Your task to perform on an android device: Go to Google maps Image 0: 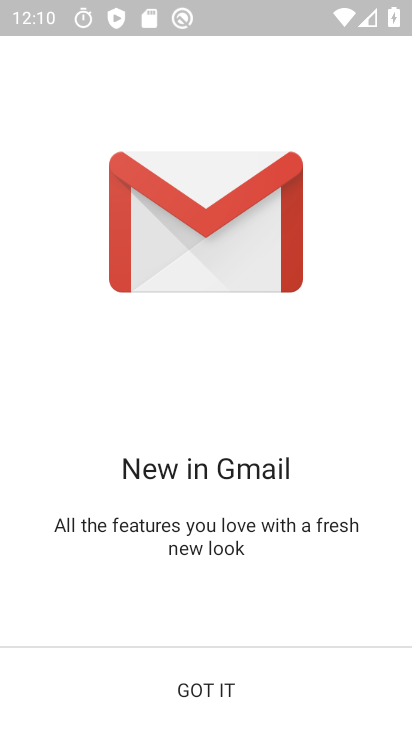
Step 0: press back button
Your task to perform on an android device: Go to Google maps Image 1: 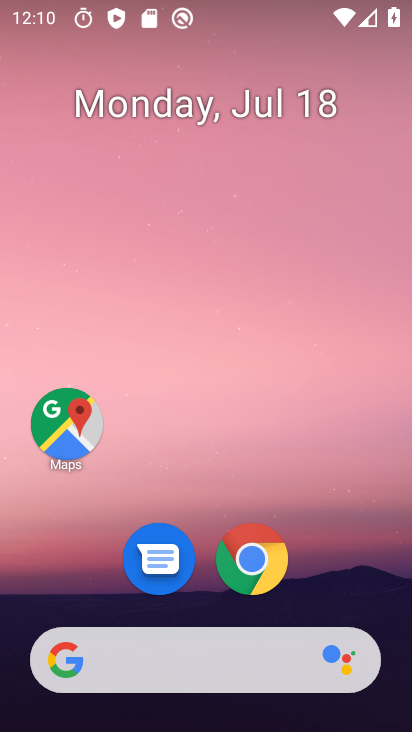
Step 1: click (60, 401)
Your task to perform on an android device: Go to Google maps Image 2: 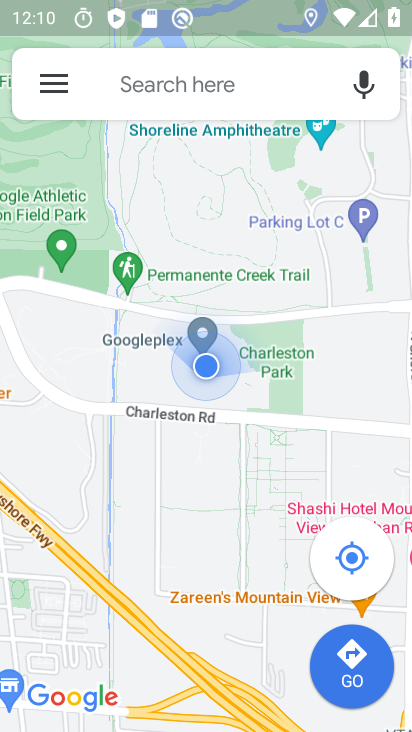
Step 2: task complete